Your task to perform on an android device: manage bookmarks in the chrome app Image 0: 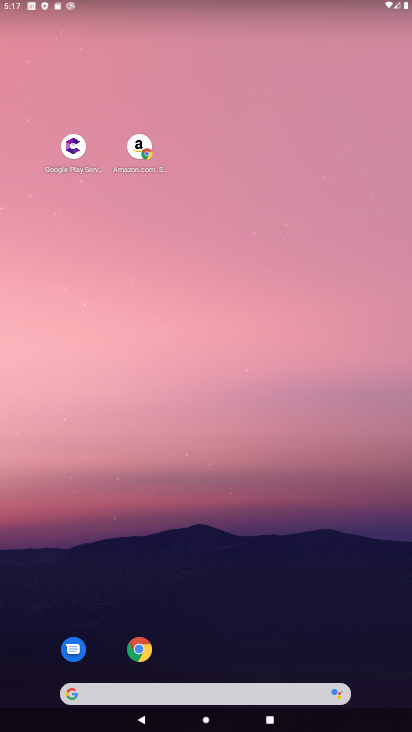
Step 0: click (142, 650)
Your task to perform on an android device: manage bookmarks in the chrome app Image 1: 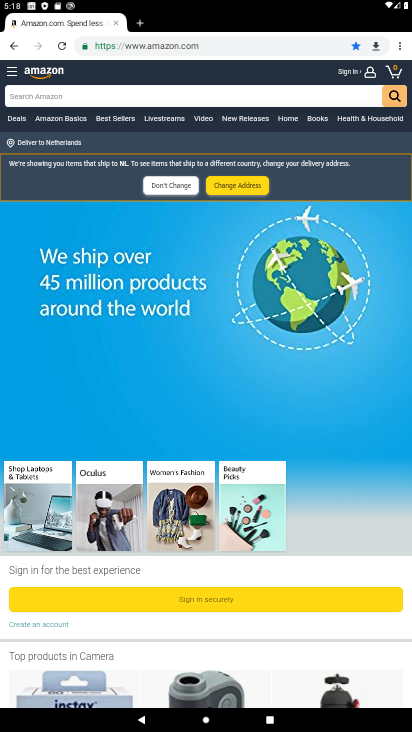
Step 1: click (401, 48)
Your task to perform on an android device: manage bookmarks in the chrome app Image 2: 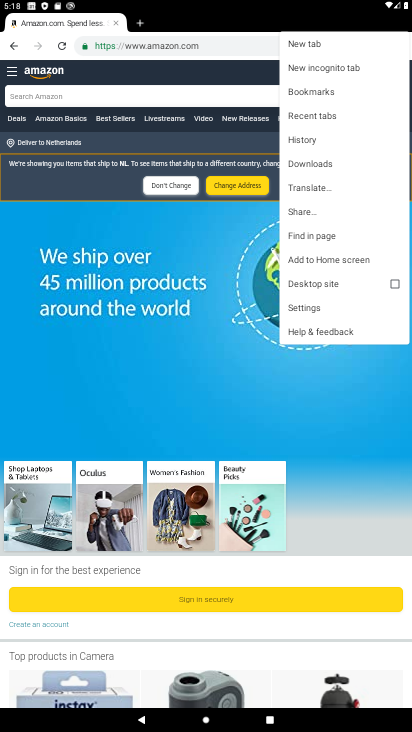
Step 2: click (319, 87)
Your task to perform on an android device: manage bookmarks in the chrome app Image 3: 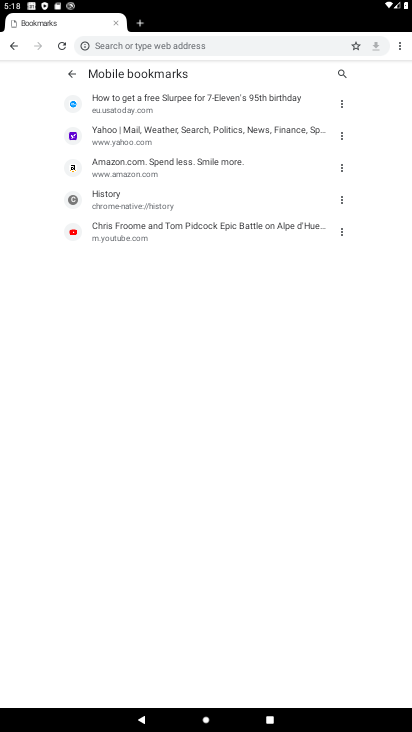
Step 3: click (338, 100)
Your task to perform on an android device: manage bookmarks in the chrome app Image 4: 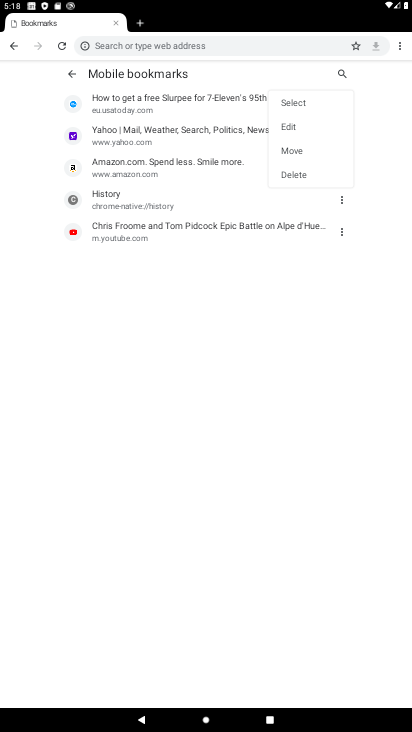
Step 4: click (294, 126)
Your task to perform on an android device: manage bookmarks in the chrome app Image 5: 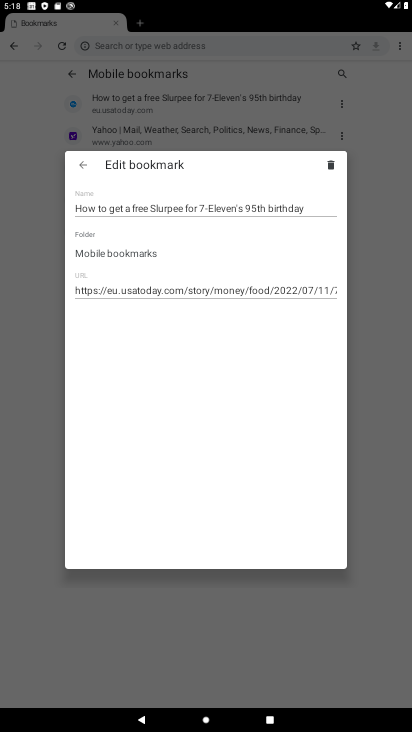
Step 5: click (332, 160)
Your task to perform on an android device: manage bookmarks in the chrome app Image 6: 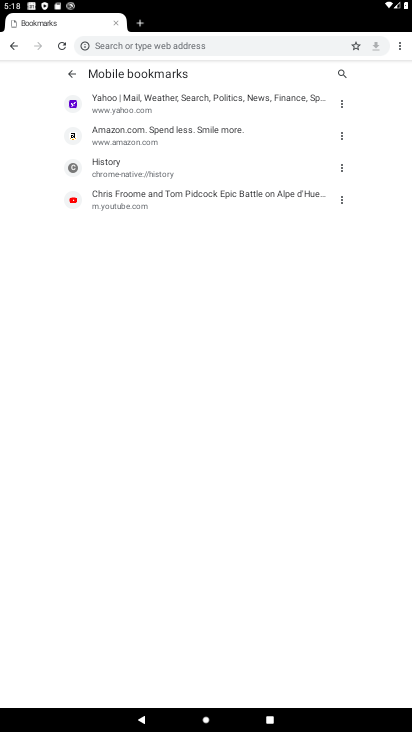
Step 6: task complete